Your task to perform on an android device: Go to CNN.com Image 0: 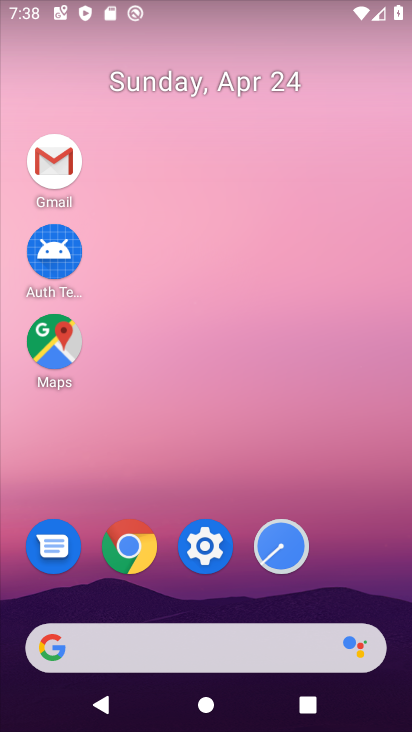
Step 0: click (204, 647)
Your task to perform on an android device: Go to CNN.com Image 1: 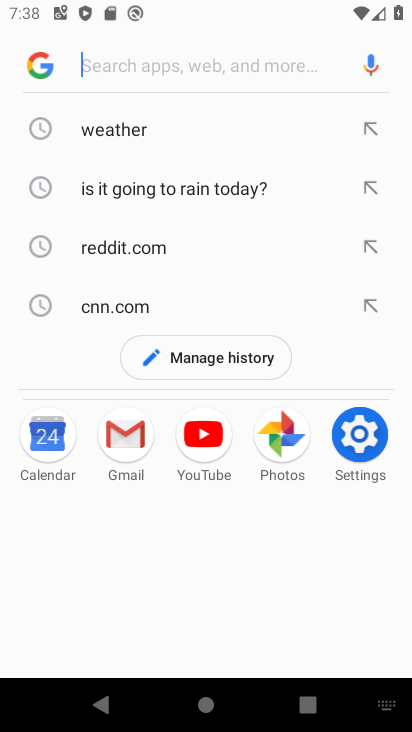
Step 1: click (113, 295)
Your task to perform on an android device: Go to CNN.com Image 2: 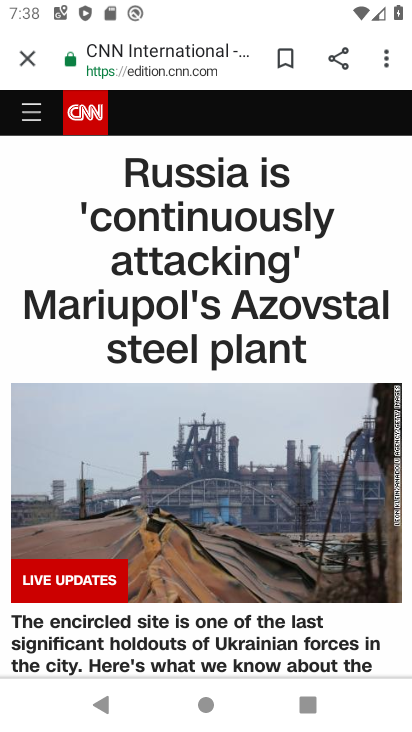
Step 2: task complete